Your task to perform on an android device: read, delete, or share a saved page in the chrome app Image 0: 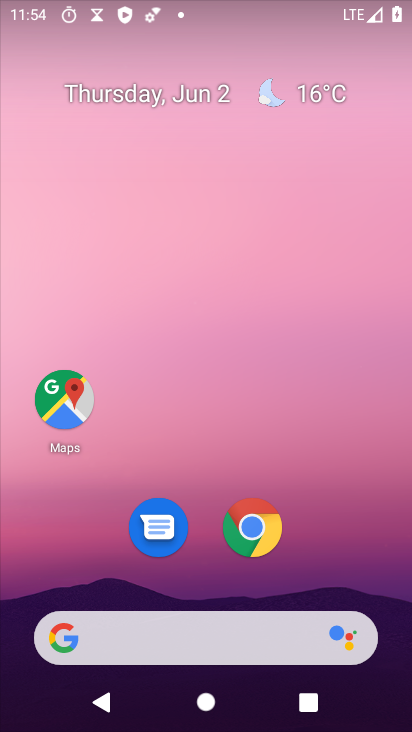
Step 0: click (247, 536)
Your task to perform on an android device: read, delete, or share a saved page in the chrome app Image 1: 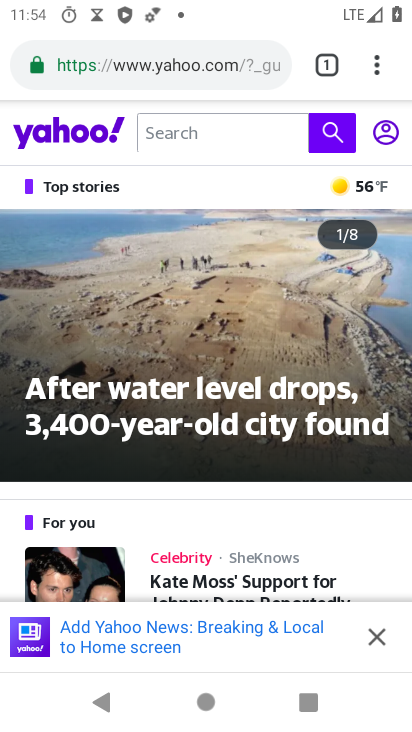
Step 1: drag from (376, 68) to (166, 418)
Your task to perform on an android device: read, delete, or share a saved page in the chrome app Image 2: 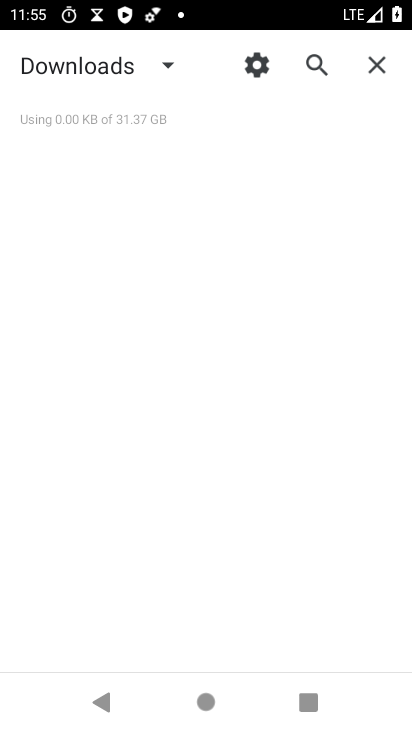
Step 2: click (105, 77)
Your task to perform on an android device: read, delete, or share a saved page in the chrome app Image 3: 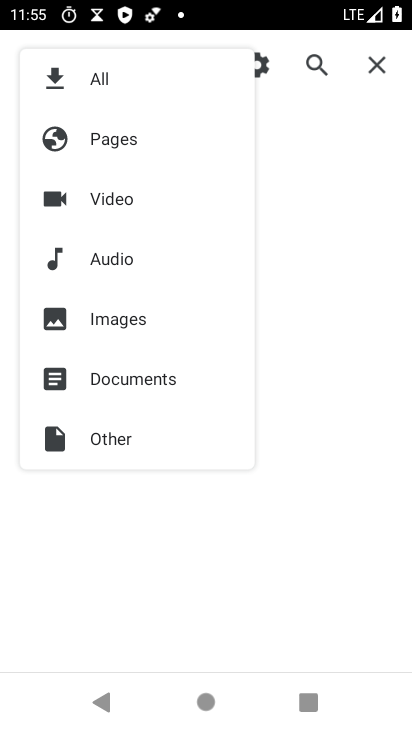
Step 3: click (78, 138)
Your task to perform on an android device: read, delete, or share a saved page in the chrome app Image 4: 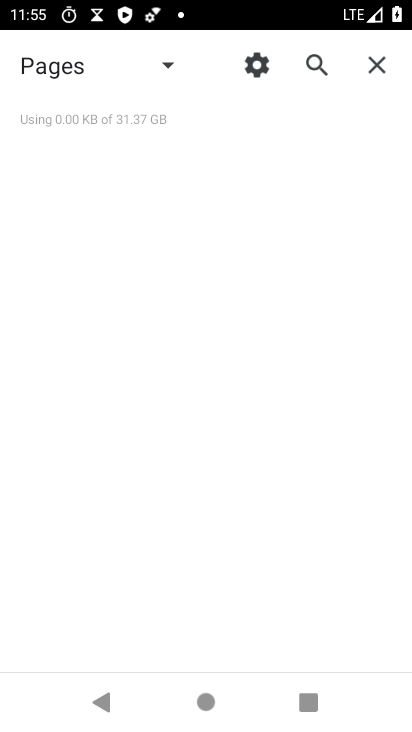
Step 4: task complete